Your task to perform on an android device: Go to Android settings Image 0: 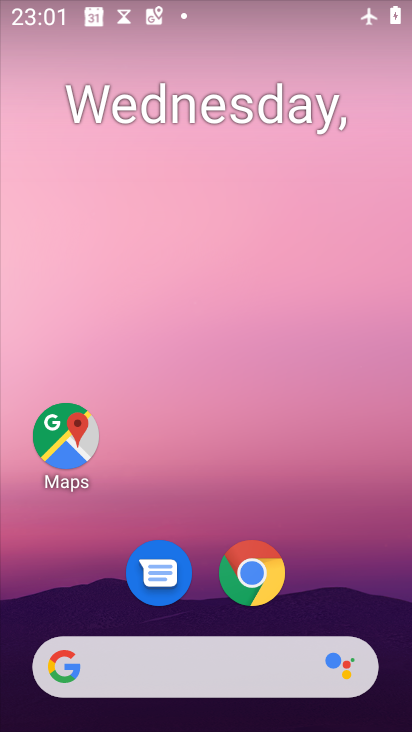
Step 0: drag from (328, 520) to (308, 242)
Your task to perform on an android device: Go to Android settings Image 1: 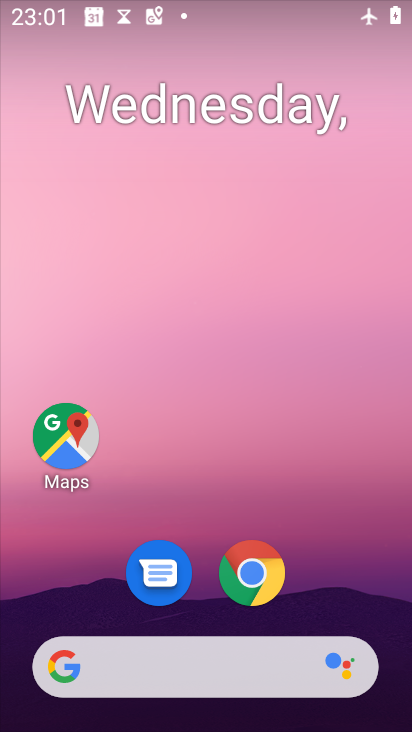
Step 1: drag from (320, 574) to (323, 170)
Your task to perform on an android device: Go to Android settings Image 2: 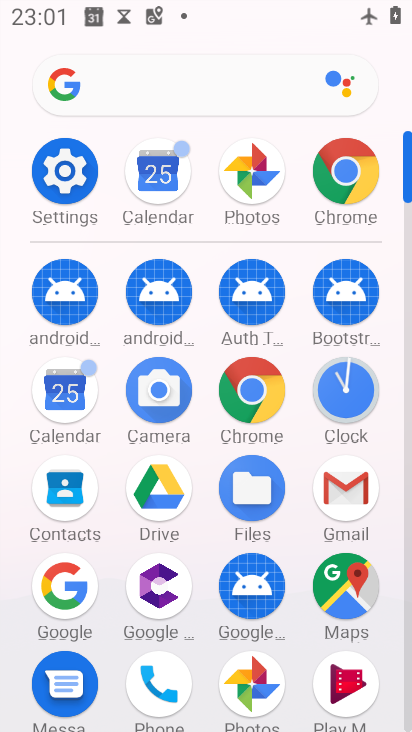
Step 2: click (64, 169)
Your task to perform on an android device: Go to Android settings Image 3: 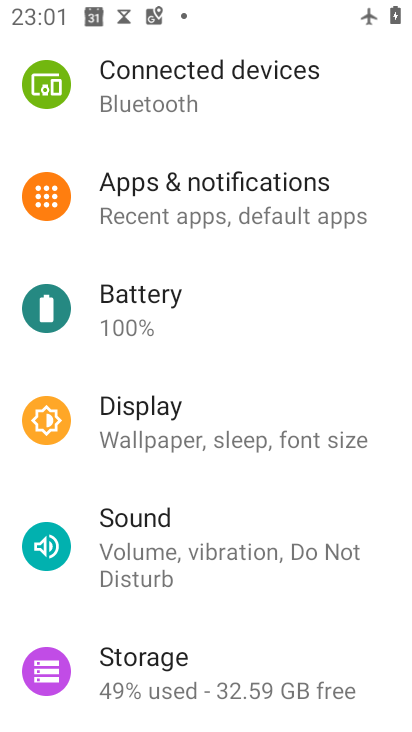
Step 3: drag from (253, 588) to (261, 175)
Your task to perform on an android device: Go to Android settings Image 4: 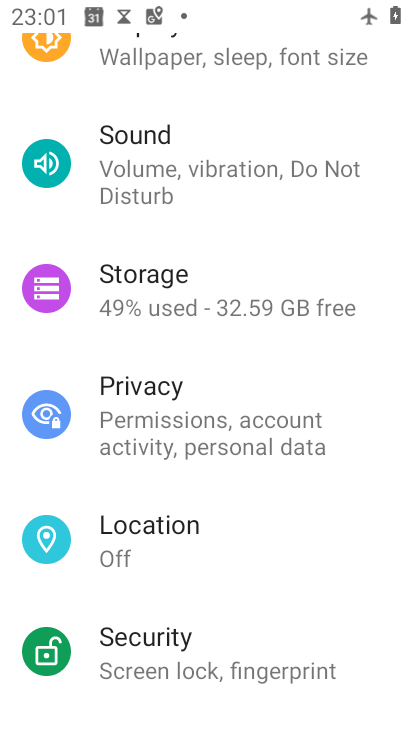
Step 4: drag from (243, 621) to (238, 190)
Your task to perform on an android device: Go to Android settings Image 5: 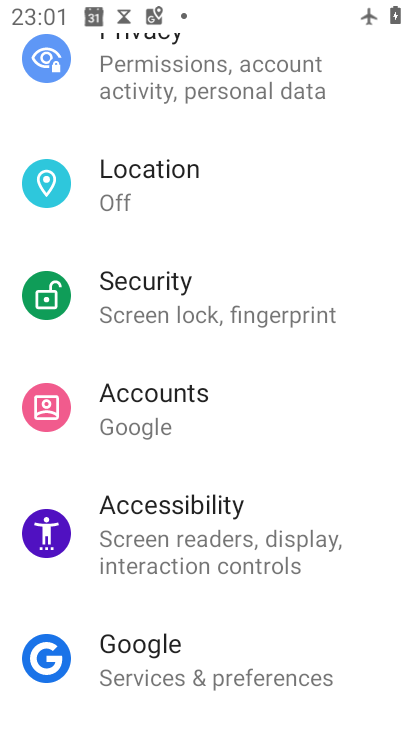
Step 5: drag from (217, 683) to (235, 253)
Your task to perform on an android device: Go to Android settings Image 6: 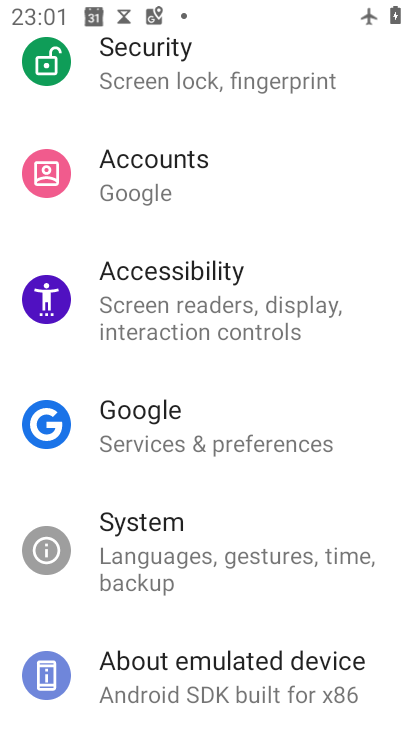
Step 6: drag from (200, 639) to (210, 237)
Your task to perform on an android device: Go to Android settings Image 7: 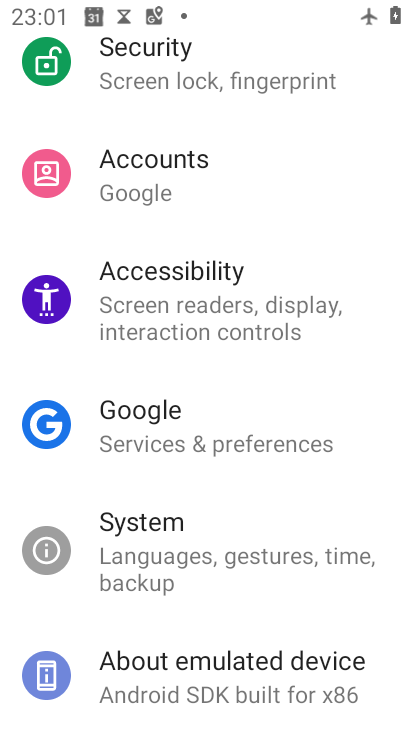
Step 7: click (214, 692)
Your task to perform on an android device: Go to Android settings Image 8: 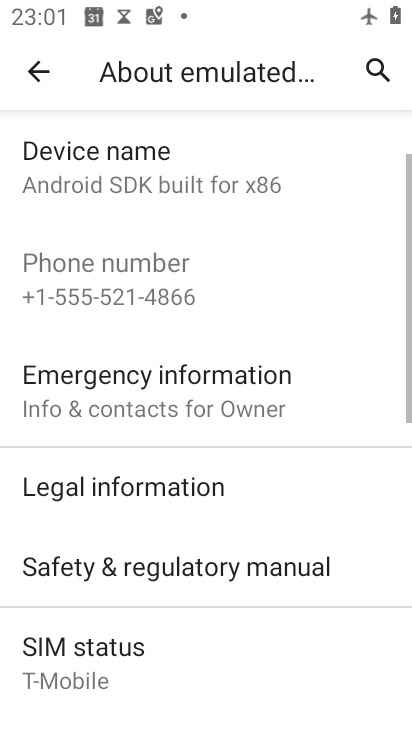
Step 8: click (221, 690)
Your task to perform on an android device: Go to Android settings Image 9: 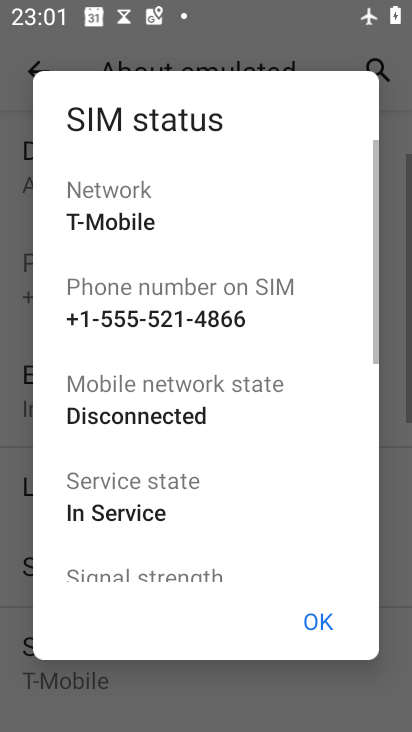
Step 9: drag from (221, 673) to (219, 293)
Your task to perform on an android device: Go to Android settings Image 10: 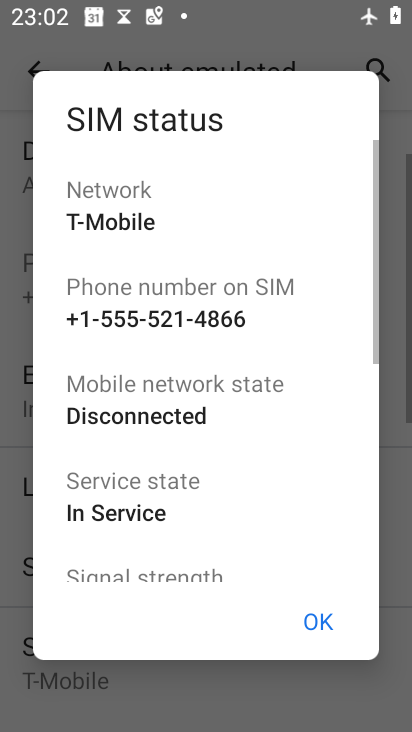
Step 10: click (324, 635)
Your task to perform on an android device: Go to Android settings Image 11: 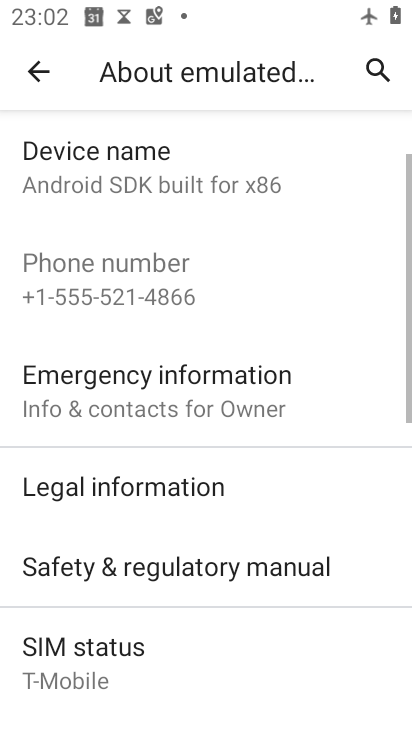
Step 11: task complete